Your task to perform on an android device: turn on translation in the chrome app Image 0: 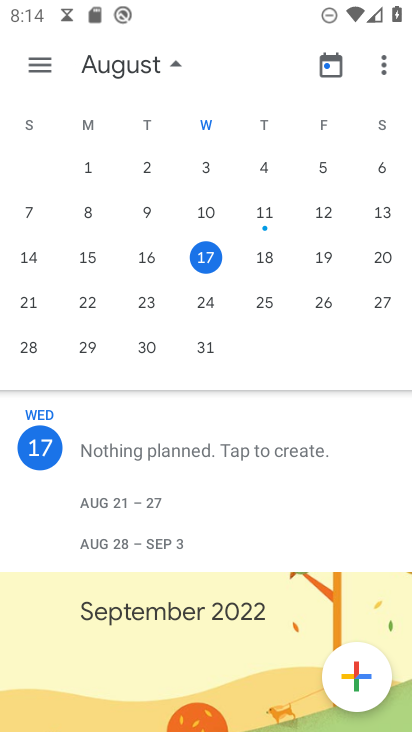
Step 0: press home button
Your task to perform on an android device: turn on translation in the chrome app Image 1: 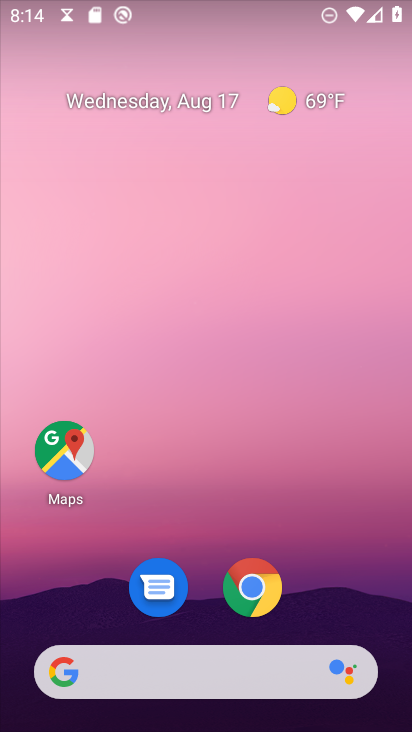
Step 1: click (241, 600)
Your task to perform on an android device: turn on translation in the chrome app Image 2: 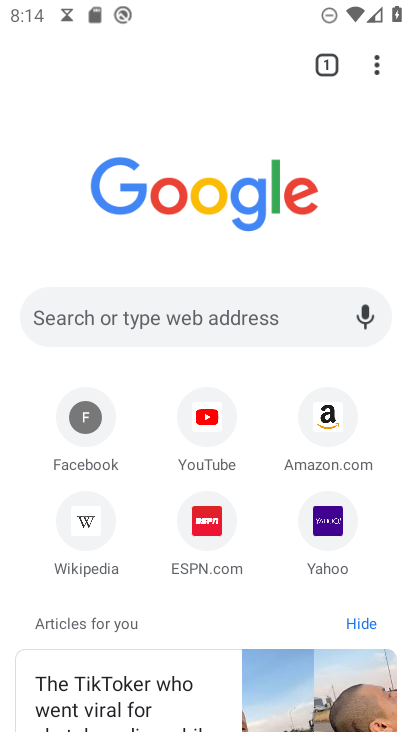
Step 2: click (376, 59)
Your task to perform on an android device: turn on translation in the chrome app Image 3: 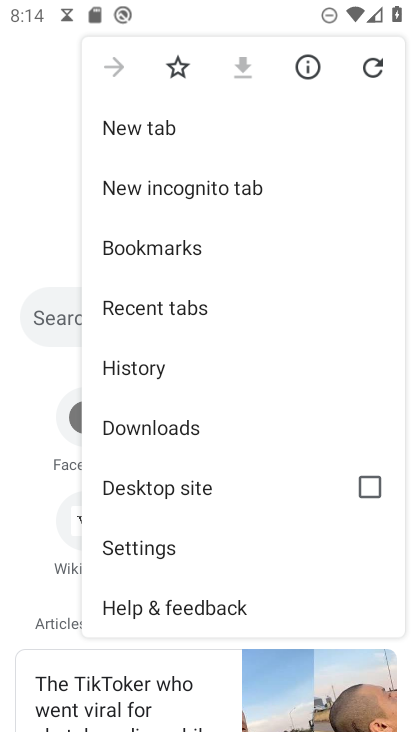
Step 3: click (136, 550)
Your task to perform on an android device: turn on translation in the chrome app Image 4: 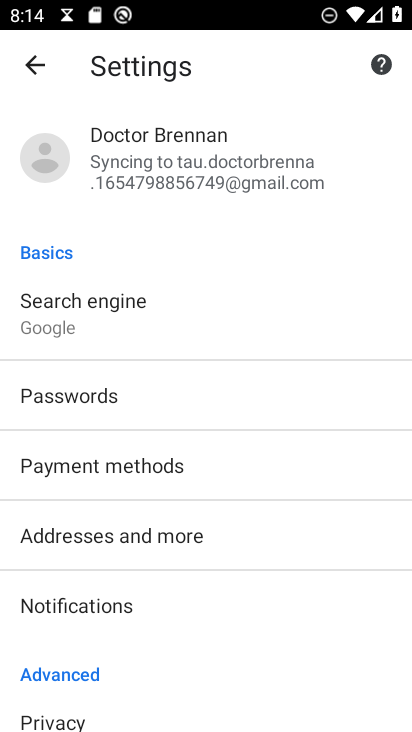
Step 4: drag from (269, 663) to (278, 456)
Your task to perform on an android device: turn on translation in the chrome app Image 5: 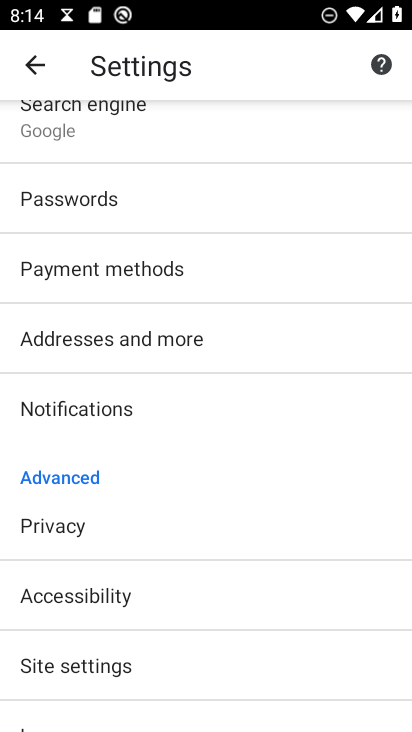
Step 5: drag from (325, 530) to (283, 299)
Your task to perform on an android device: turn on translation in the chrome app Image 6: 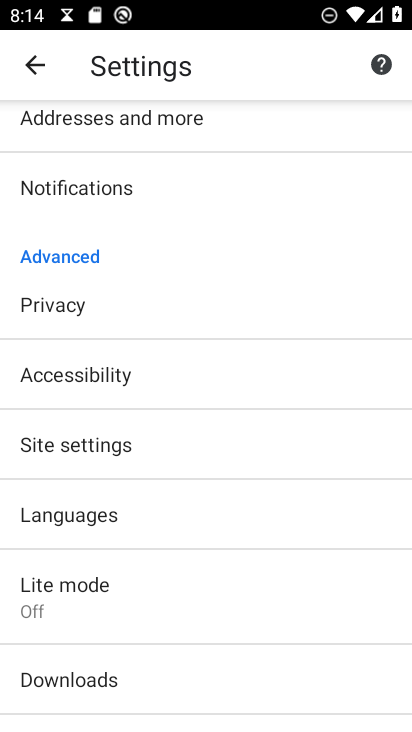
Step 6: click (117, 520)
Your task to perform on an android device: turn on translation in the chrome app Image 7: 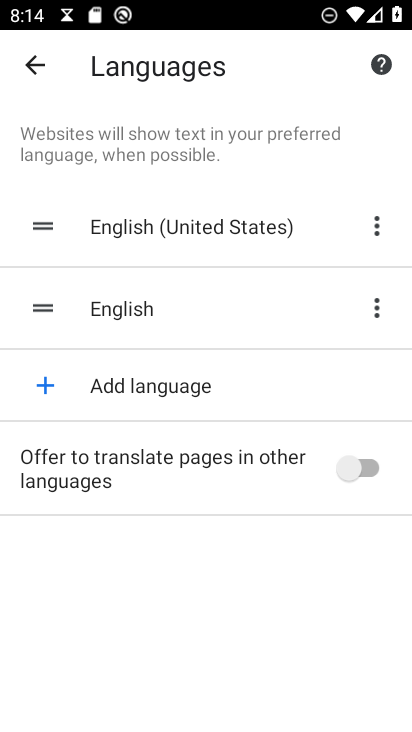
Step 7: click (349, 482)
Your task to perform on an android device: turn on translation in the chrome app Image 8: 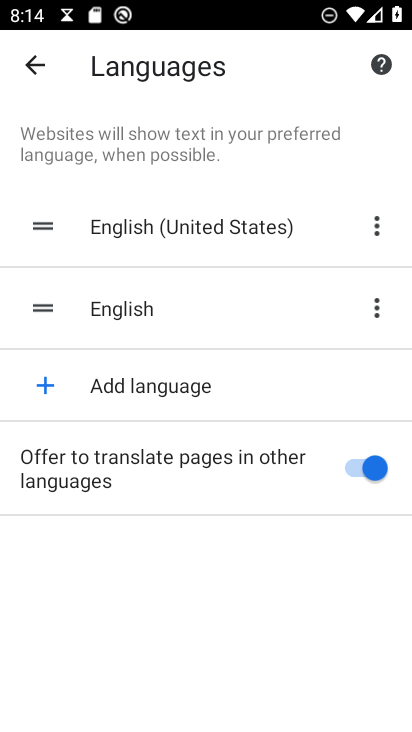
Step 8: task complete